Your task to perform on an android device: turn on priority inbox in the gmail app Image 0: 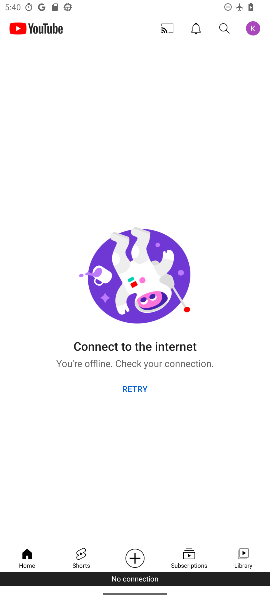
Step 0: click (145, 326)
Your task to perform on an android device: turn on priority inbox in the gmail app Image 1: 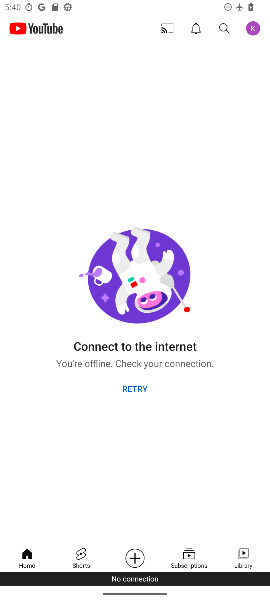
Step 1: drag from (161, 467) to (144, 307)
Your task to perform on an android device: turn on priority inbox in the gmail app Image 2: 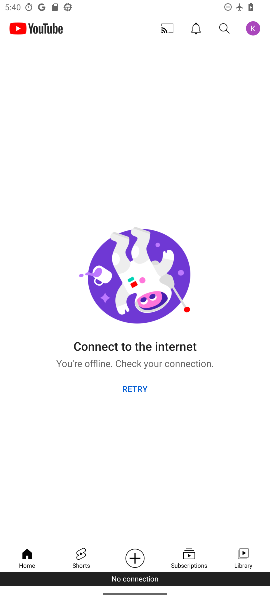
Step 2: drag from (129, 520) to (171, 241)
Your task to perform on an android device: turn on priority inbox in the gmail app Image 3: 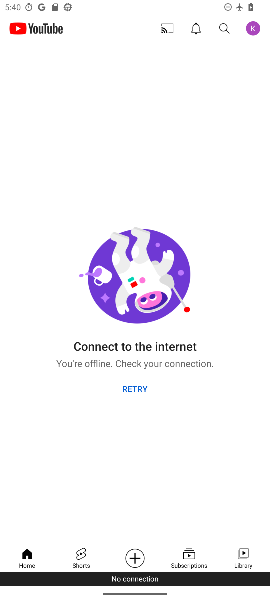
Step 3: drag from (165, 475) to (164, 297)
Your task to perform on an android device: turn on priority inbox in the gmail app Image 4: 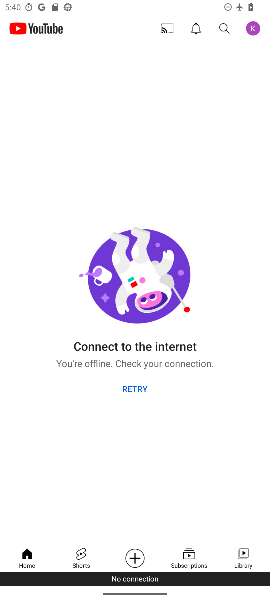
Step 4: drag from (211, 474) to (181, 276)
Your task to perform on an android device: turn on priority inbox in the gmail app Image 5: 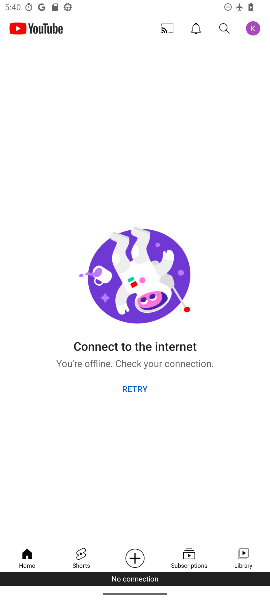
Step 5: drag from (169, 488) to (150, 244)
Your task to perform on an android device: turn on priority inbox in the gmail app Image 6: 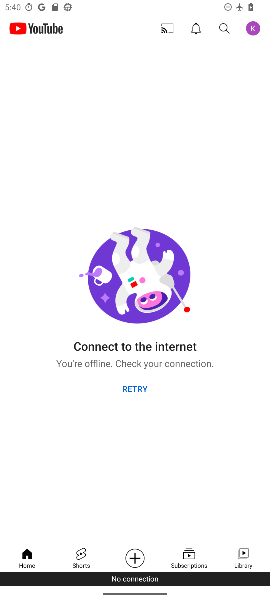
Step 6: drag from (208, 522) to (196, 232)
Your task to perform on an android device: turn on priority inbox in the gmail app Image 7: 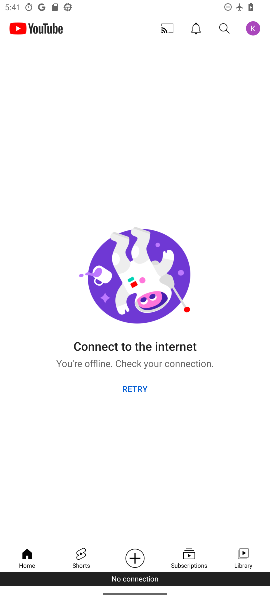
Step 7: press home button
Your task to perform on an android device: turn on priority inbox in the gmail app Image 8: 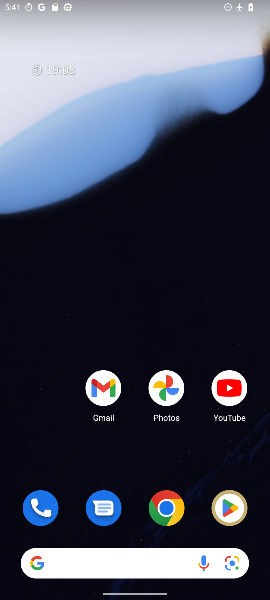
Step 8: drag from (123, 427) to (204, 32)
Your task to perform on an android device: turn on priority inbox in the gmail app Image 9: 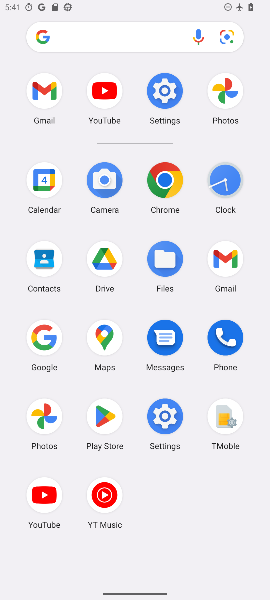
Step 9: click (212, 267)
Your task to perform on an android device: turn on priority inbox in the gmail app Image 10: 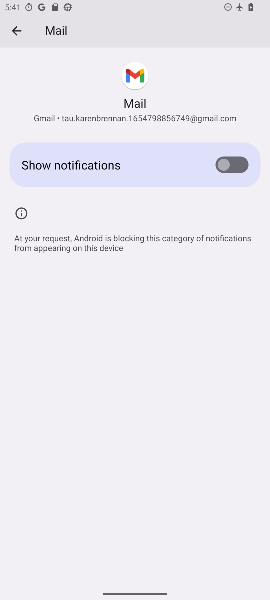
Step 10: click (17, 32)
Your task to perform on an android device: turn on priority inbox in the gmail app Image 11: 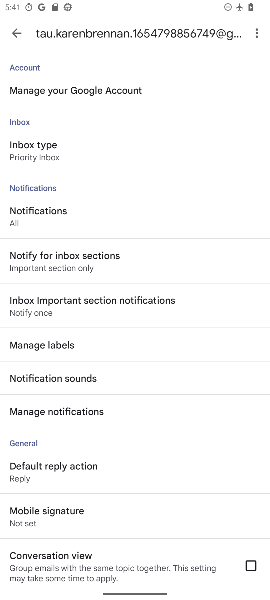
Step 11: click (14, 23)
Your task to perform on an android device: turn on priority inbox in the gmail app Image 12: 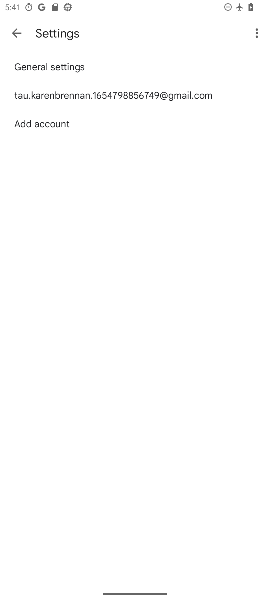
Step 12: click (8, 34)
Your task to perform on an android device: turn on priority inbox in the gmail app Image 13: 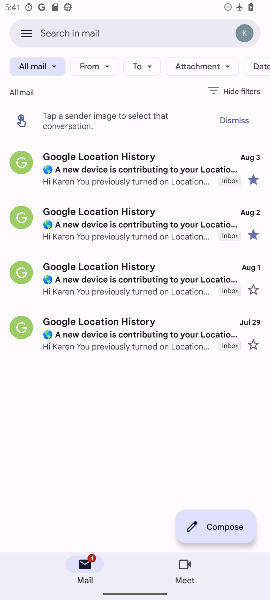
Step 13: click (19, 31)
Your task to perform on an android device: turn on priority inbox in the gmail app Image 14: 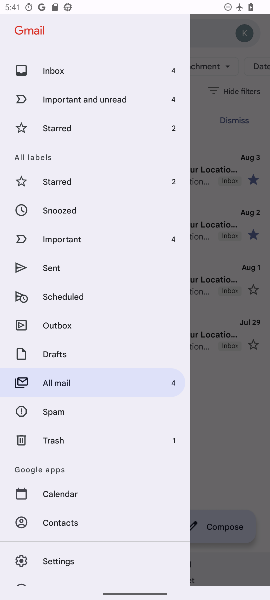
Step 14: click (78, 559)
Your task to perform on an android device: turn on priority inbox in the gmail app Image 15: 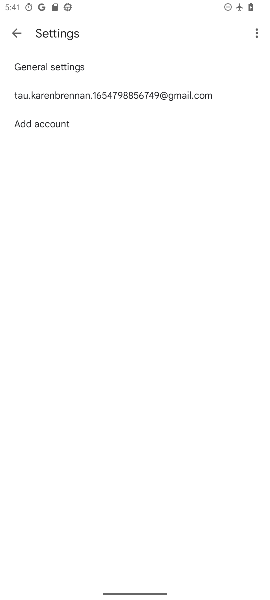
Step 15: click (112, 94)
Your task to perform on an android device: turn on priority inbox in the gmail app Image 16: 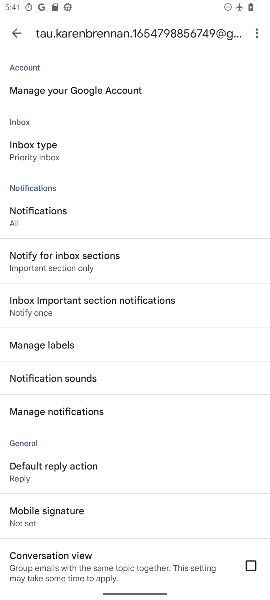
Step 16: click (62, 142)
Your task to perform on an android device: turn on priority inbox in the gmail app Image 17: 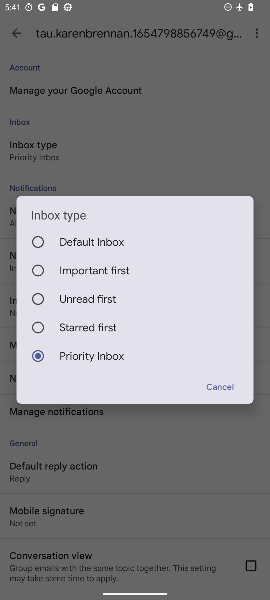
Step 17: click (72, 240)
Your task to perform on an android device: turn on priority inbox in the gmail app Image 18: 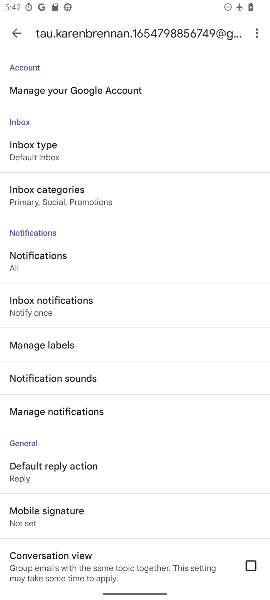
Step 18: drag from (162, 497) to (158, 227)
Your task to perform on an android device: turn on priority inbox in the gmail app Image 19: 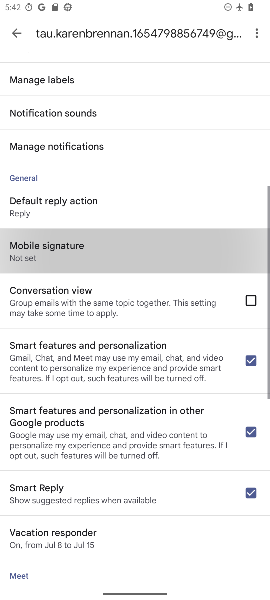
Step 19: drag from (162, 228) to (269, 234)
Your task to perform on an android device: turn on priority inbox in the gmail app Image 20: 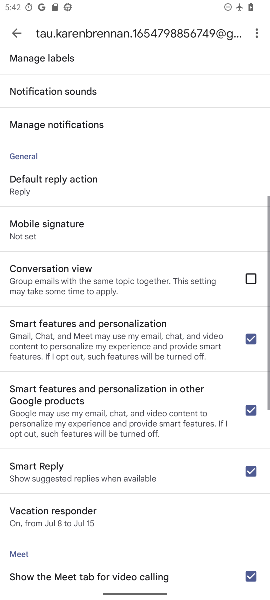
Step 20: drag from (81, 156) to (247, 330)
Your task to perform on an android device: turn on priority inbox in the gmail app Image 21: 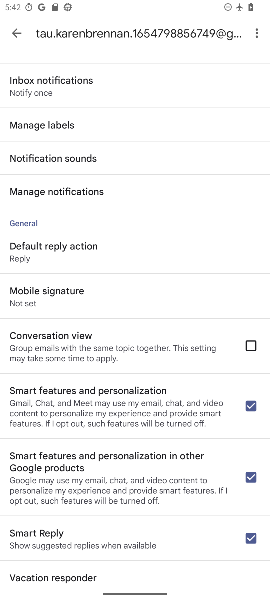
Step 21: drag from (66, 123) to (260, 327)
Your task to perform on an android device: turn on priority inbox in the gmail app Image 22: 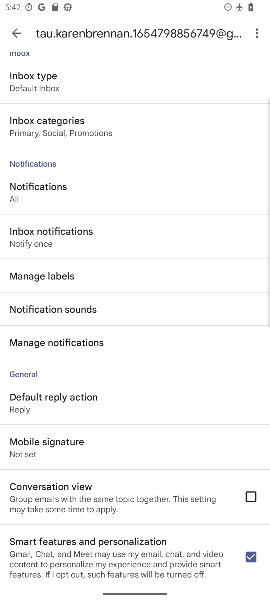
Step 22: click (118, 160)
Your task to perform on an android device: turn on priority inbox in the gmail app Image 23: 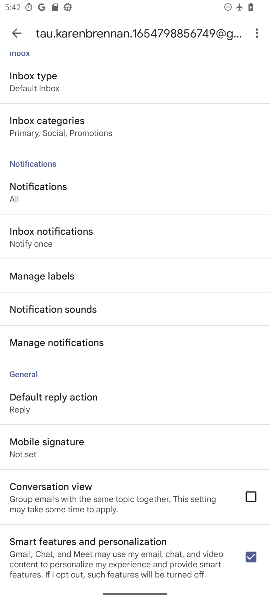
Step 23: drag from (124, 177) to (185, 520)
Your task to perform on an android device: turn on priority inbox in the gmail app Image 24: 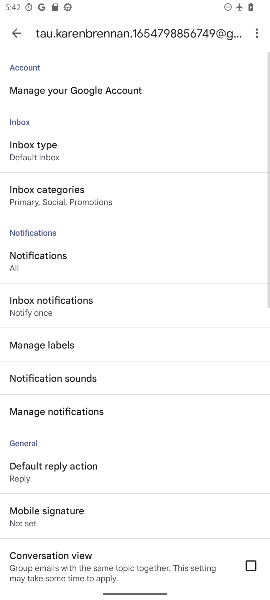
Step 24: click (67, 138)
Your task to perform on an android device: turn on priority inbox in the gmail app Image 25: 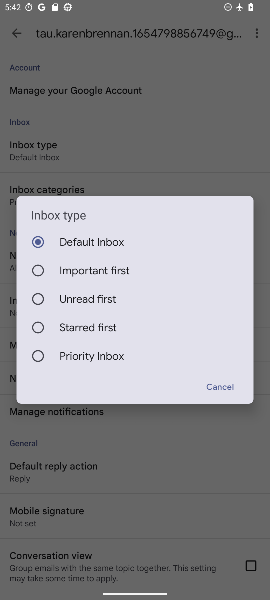
Step 25: click (81, 355)
Your task to perform on an android device: turn on priority inbox in the gmail app Image 26: 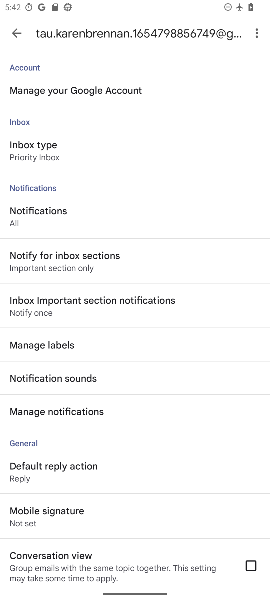
Step 26: task complete